Your task to perform on an android device: Open the calendar and show me this week's events? Image 0: 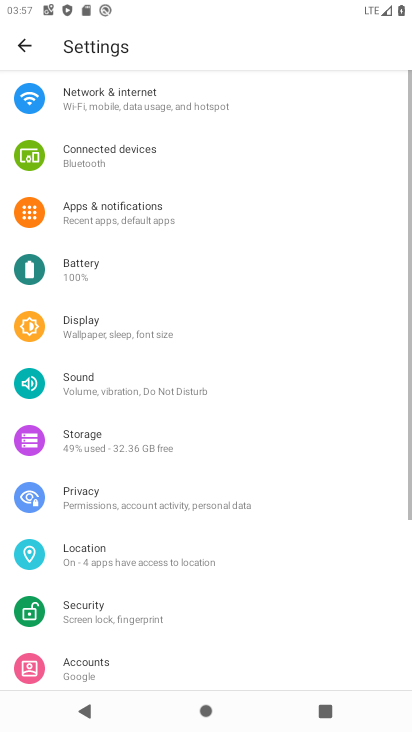
Step 0: press home button
Your task to perform on an android device: Open the calendar and show me this week's events? Image 1: 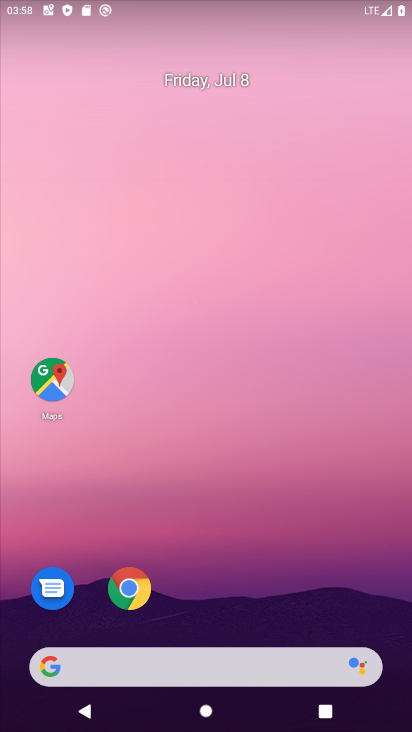
Step 1: drag from (188, 40) to (225, 65)
Your task to perform on an android device: Open the calendar and show me this week's events? Image 2: 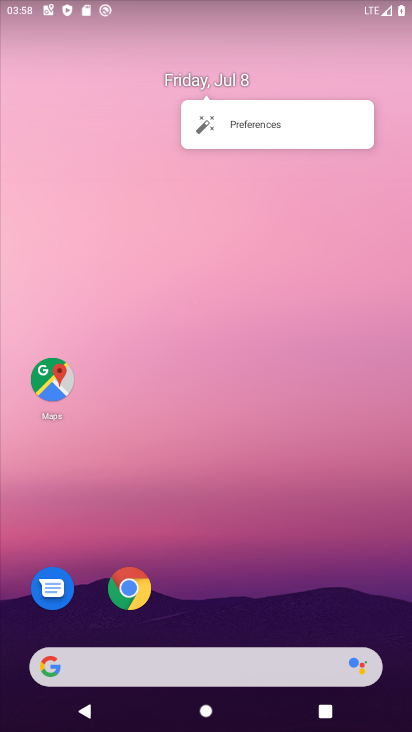
Step 2: click (201, 606)
Your task to perform on an android device: Open the calendar and show me this week's events? Image 3: 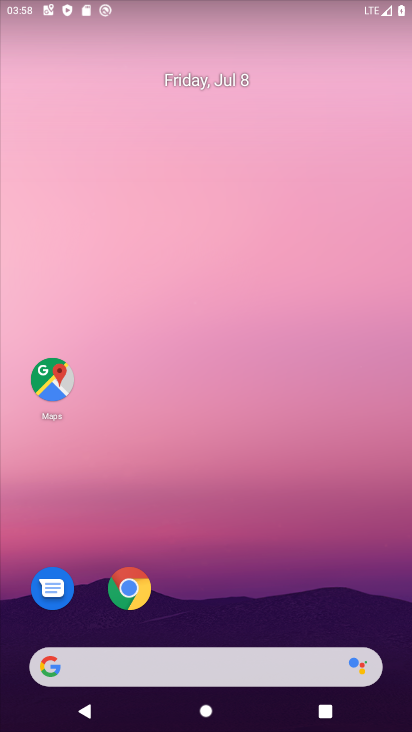
Step 3: drag from (201, 594) to (244, 60)
Your task to perform on an android device: Open the calendar and show me this week's events? Image 4: 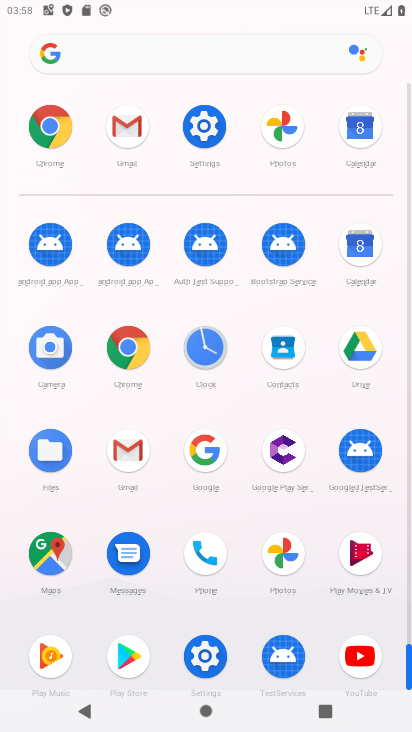
Step 4: click (351, 257)
Your task to perform on an android device: Open the calendar and show me this week's events? Image 5: 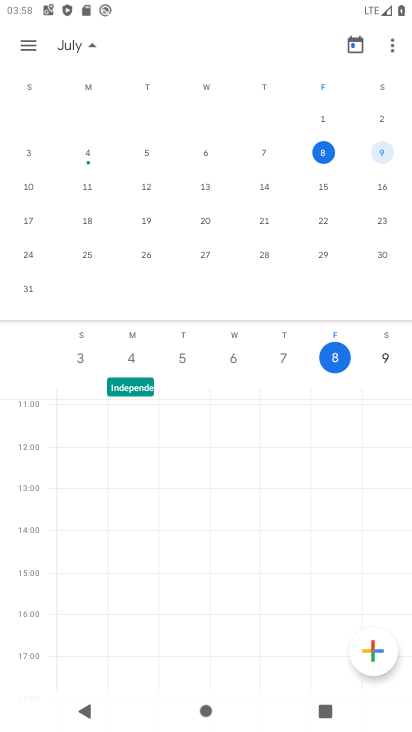
Step 5: task complete